Your task to perform on an android device: Clear all items from cart on costco.com. Add macbook pro to the cart on costco.com Image 0: 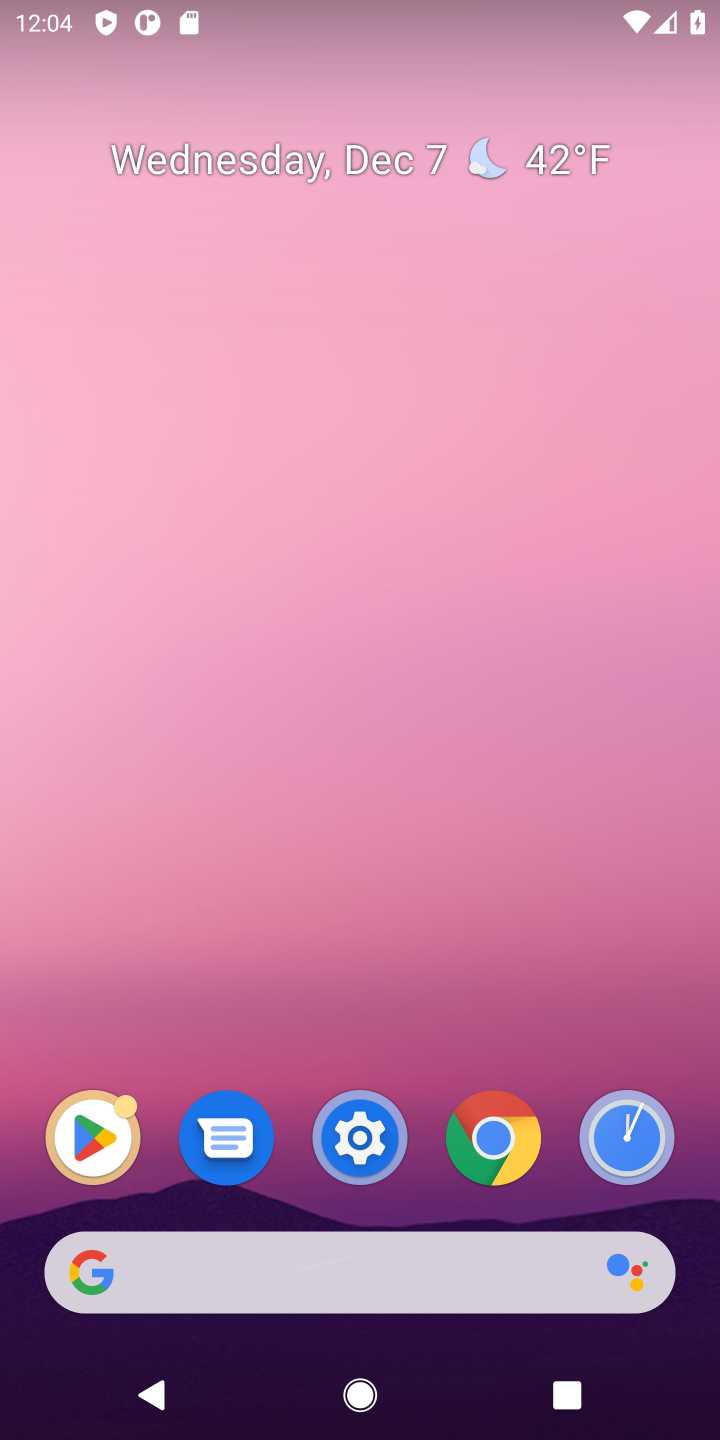
Step 0: click (394, 1249)
Your task to perform on an android device: Clear all items from cart on costco.com. Add macbook pro to the cart on costco.com Image 1: 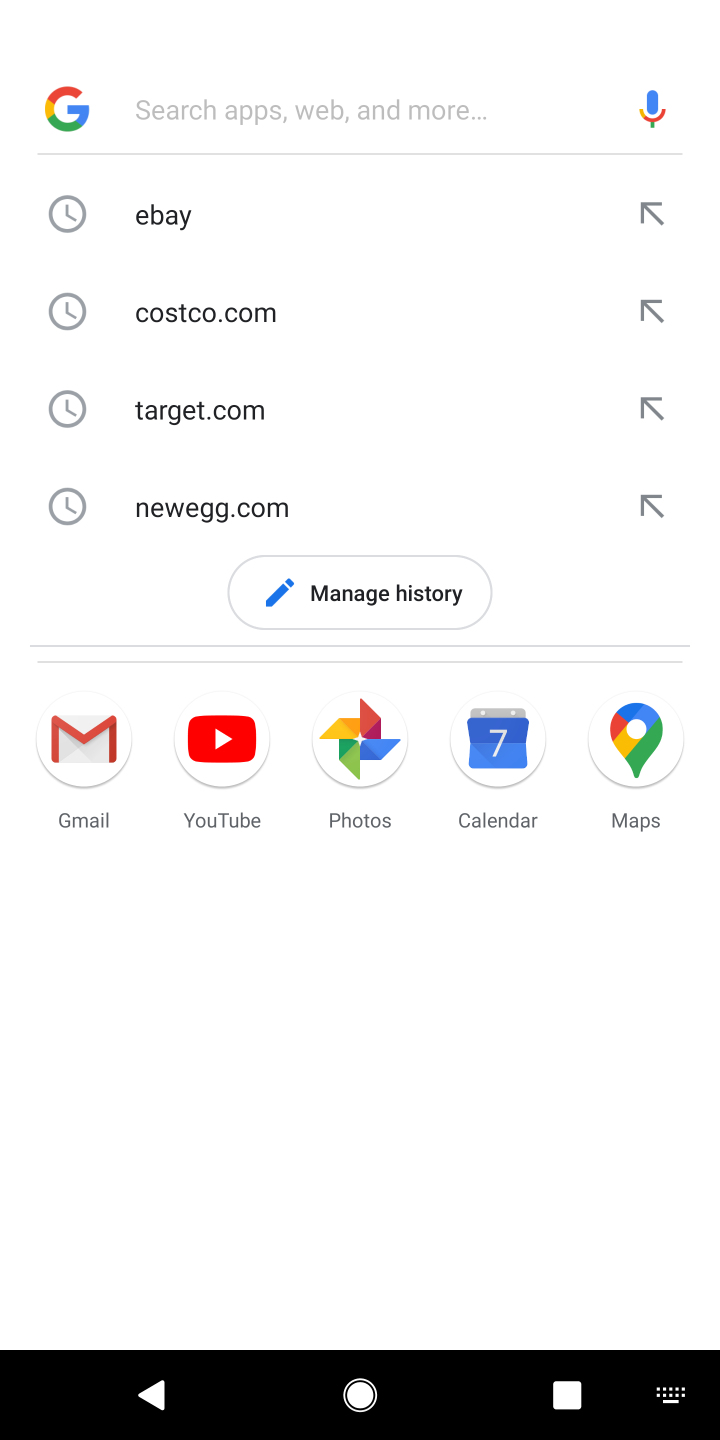
Step 1: type "costco"
Your task to perform on an android device: Clear all items from cart on costco.com. Add macbook pro to the cart on costco.com Image 2: 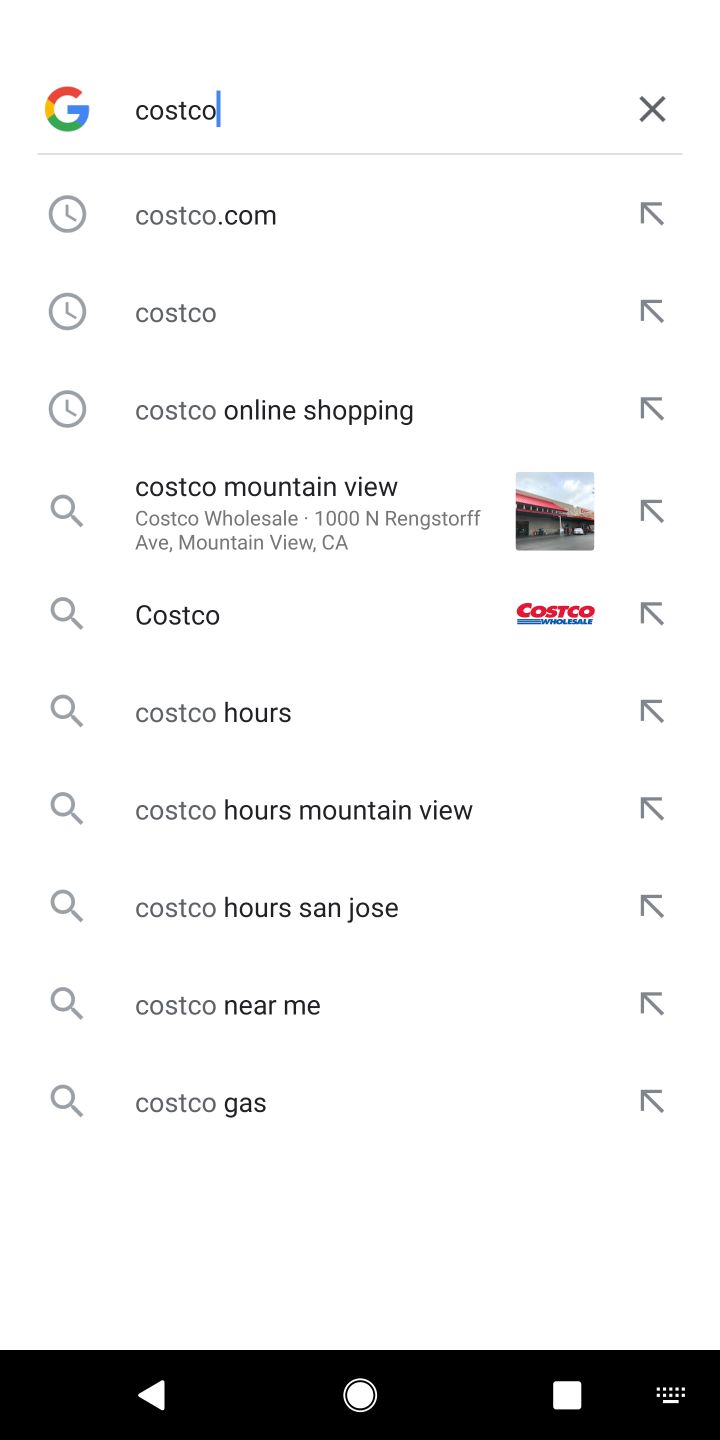
Step 2: click (221, 222)
Your task to perform on an android device: Clear all items from cart on costco.com. Add macbook pro to the cart on costco.com Image 3: 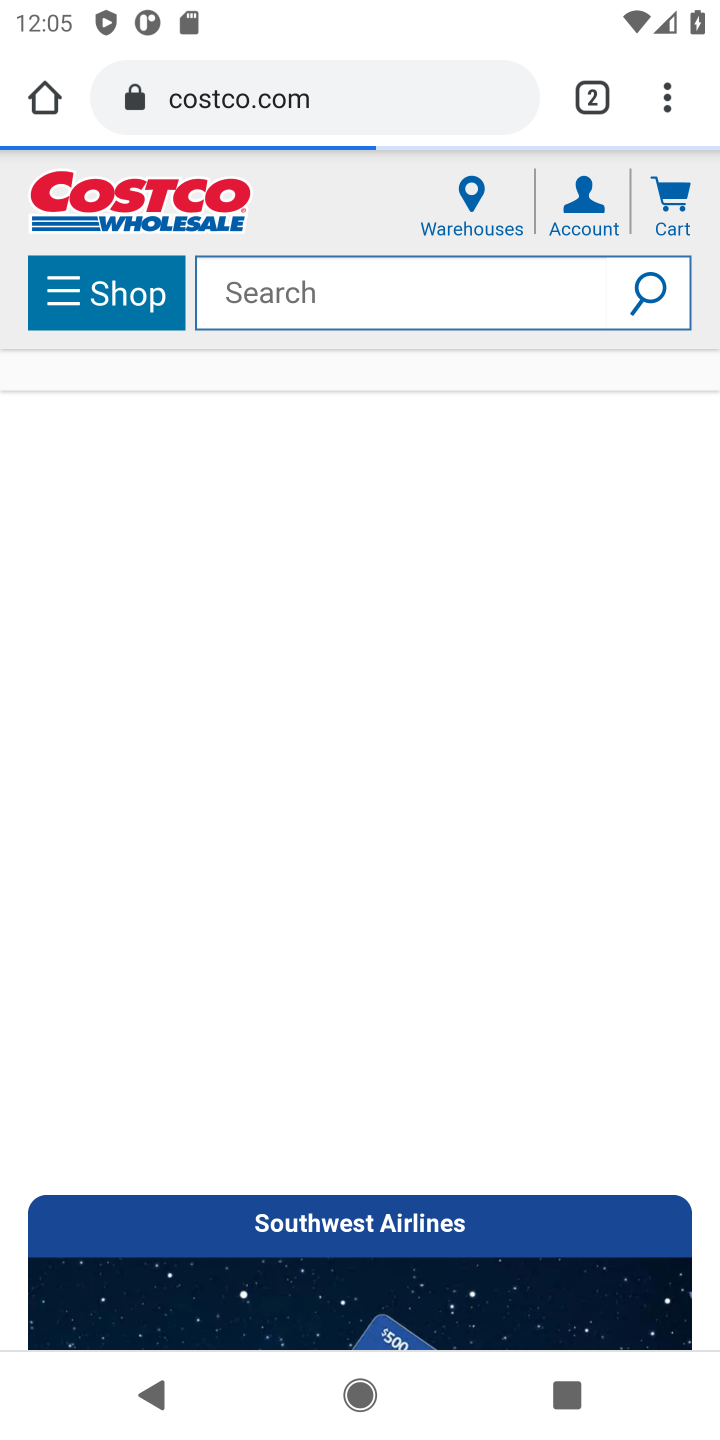
Step 3: click (322, 284)
Your task to perform on an android device: Clear all items from cart on costco.com. Add macbook pro to the cart on costco.com Image 4: 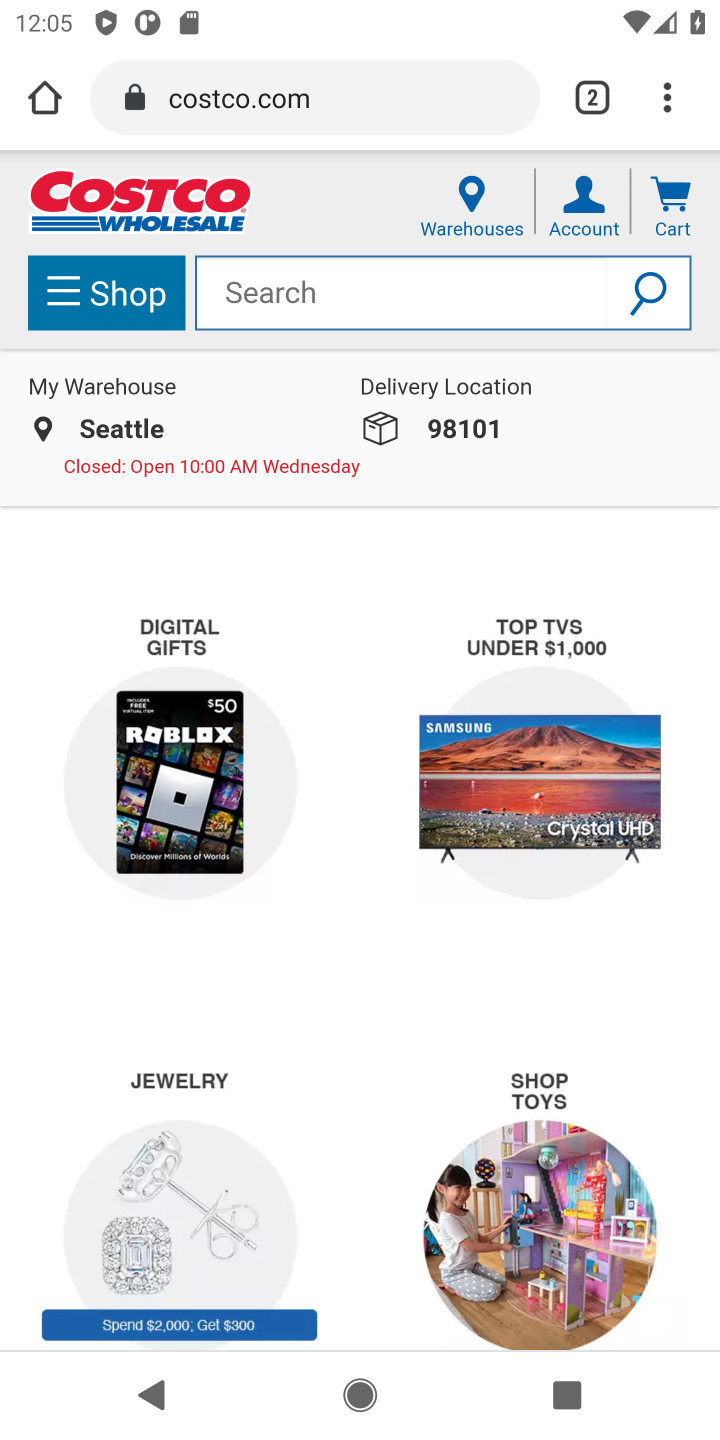
Step 4: type "macbook pro"
Your task to perform on an android device: Clear all items from cart on costco.com. Add macbook pro to the cart on costco.com Image 5: 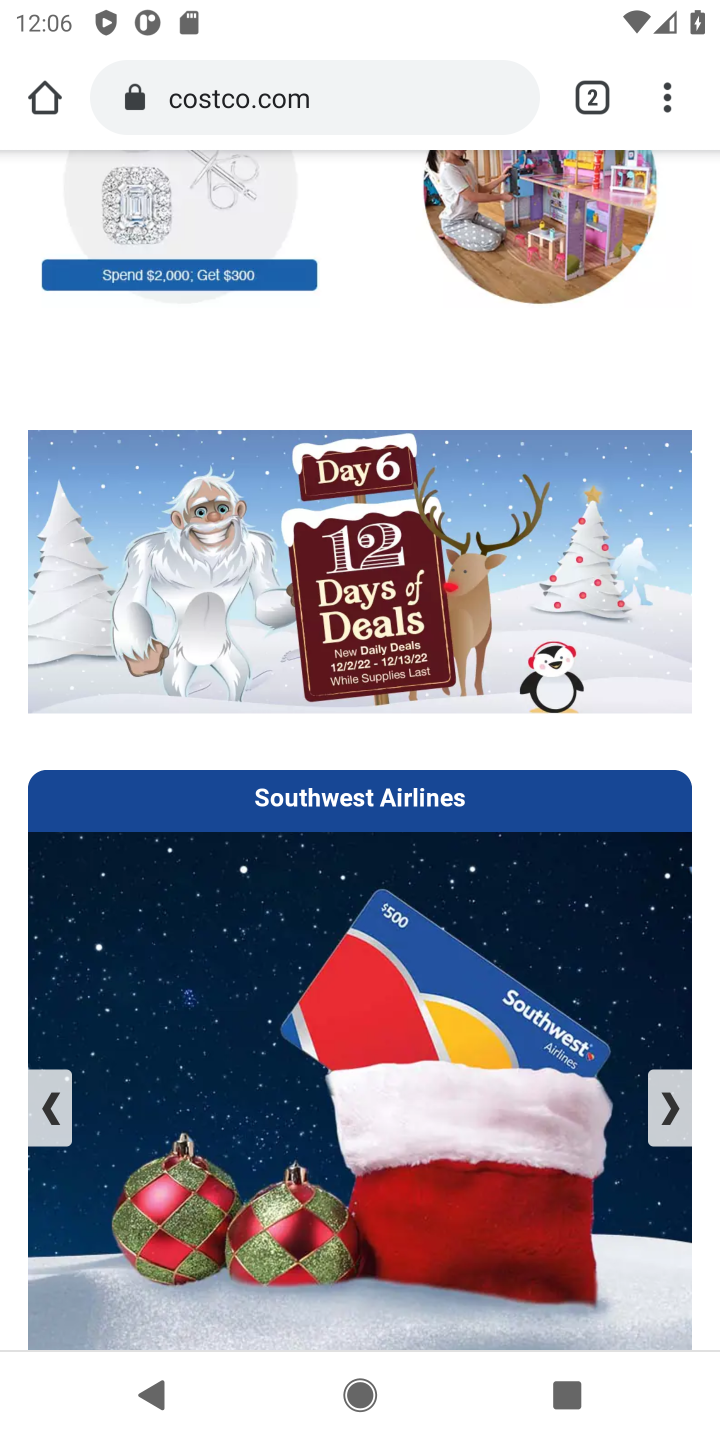
Step 5: task complete